Your task to perform on an android device: Open the map Image 0: 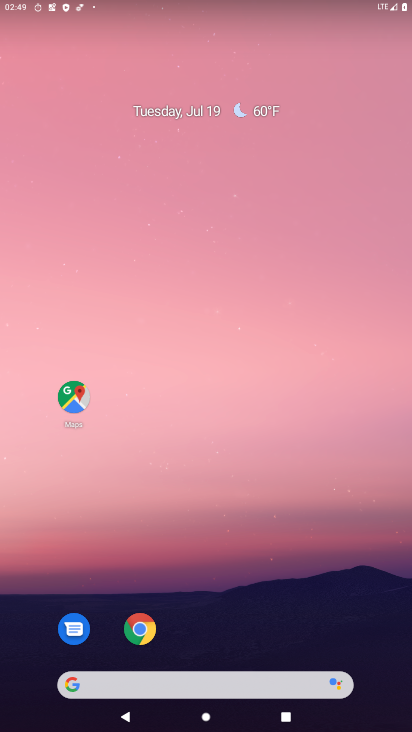
Step 0: click (76, 411)
Your task to perform on an android device: Open the map Image 1: 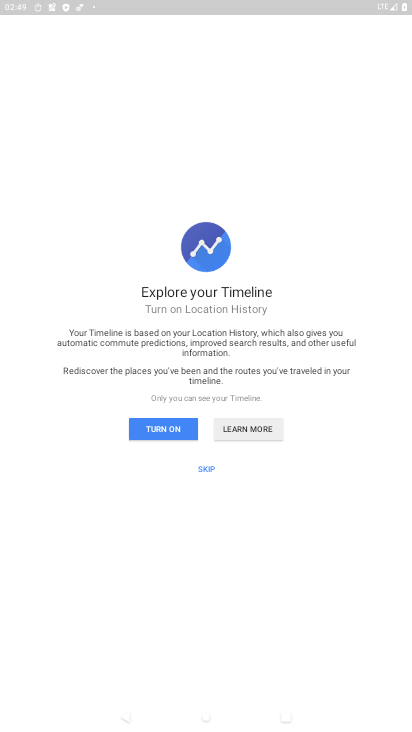
Step 1: click (187, 432)
Your task to perform on an android device: Open the map Image 2: 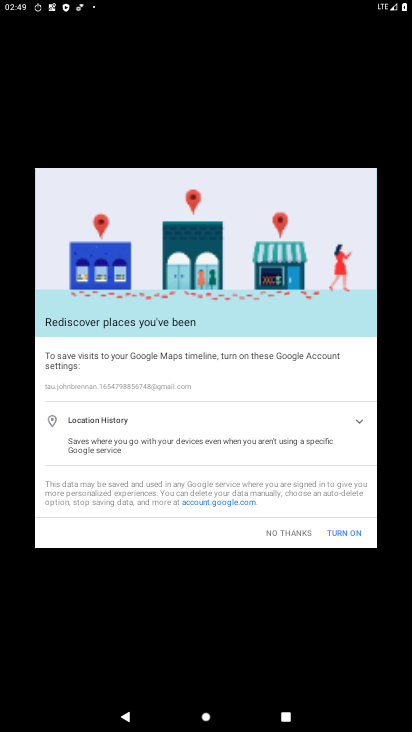
Step 2: click (340, 534)
Your task to perform on an android device: Open the map Image 3: 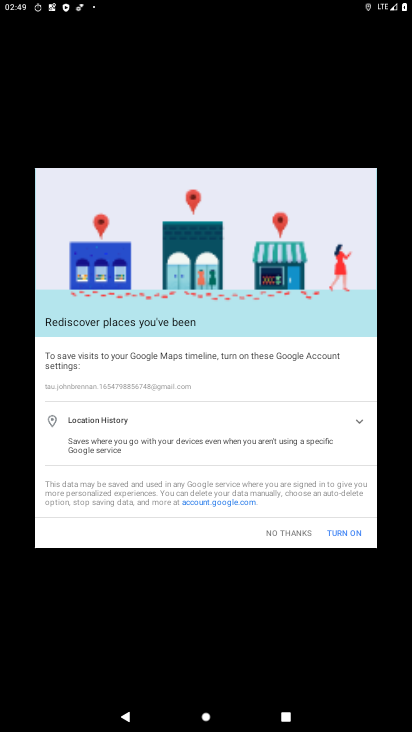
Step 3: click (341, 533)
Your task to perform on an android device: Open the map Image 4: 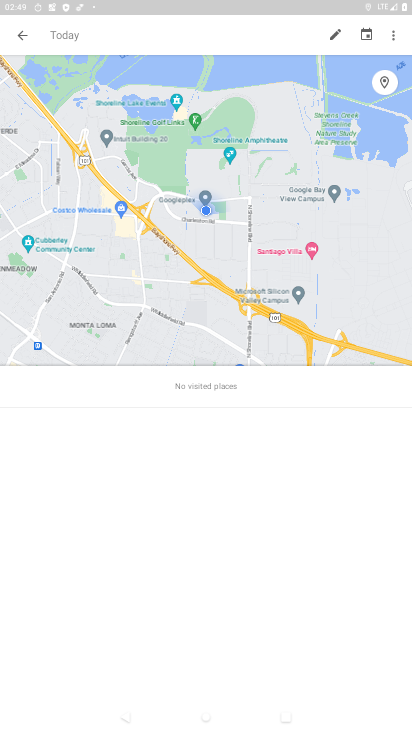
Step 4: task complete